Your task to perform on an android device: change keyboard looks Image 0: 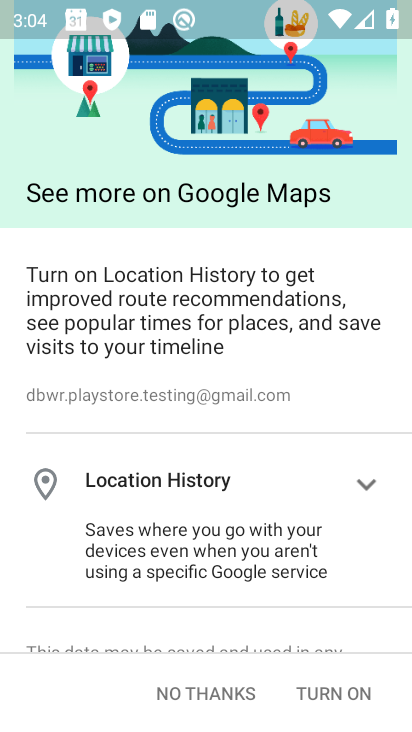
Step 0: press home button
Your task to perform on an android device: change keyboard looks Image 1: 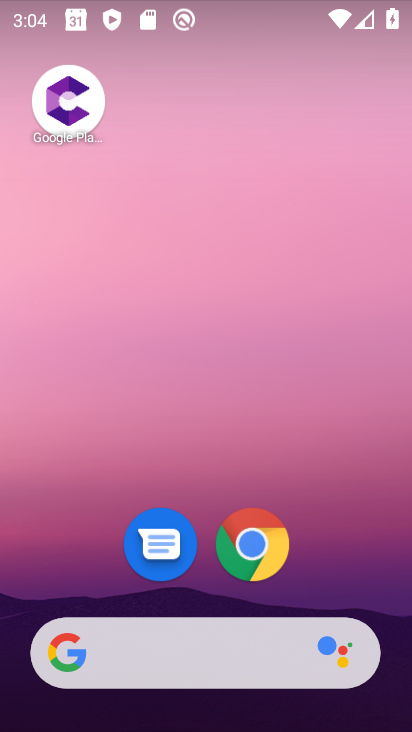
Step 1: drag from (208, 483) to (231, 50)
Your task to perform on an android device: change keyboard looks Image 2: 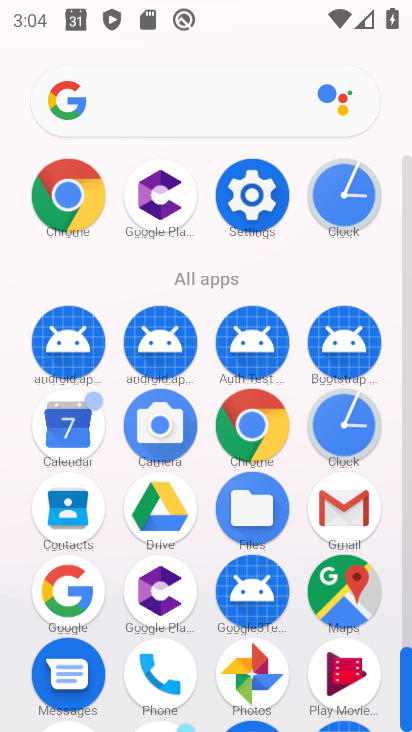
Step 2: click (252, 190)
Your task to perform on an android device: change keyboard looks Image 3: 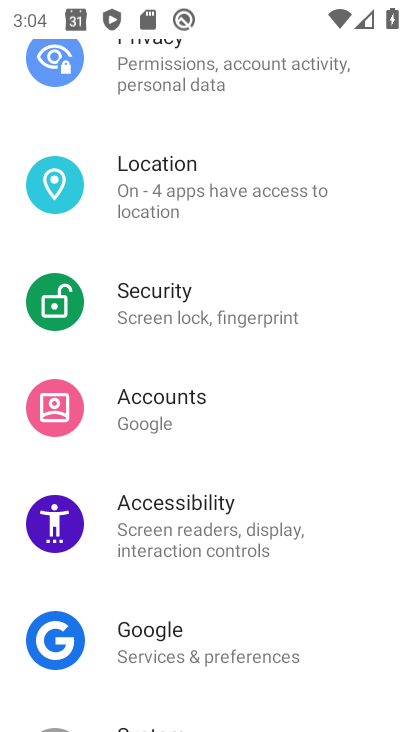
Step 3: drag from (214, 677) to (218, 34)
Your task to perform on an android device: change keyboard looks Image 4: 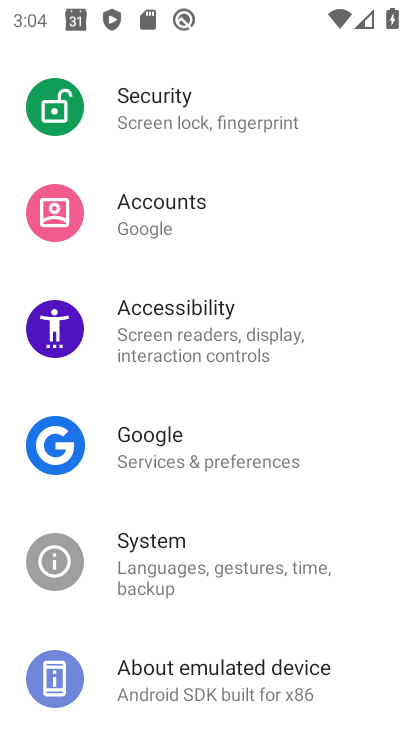
Step 4: click (208, 543)
Your task to perform on an android device: change keyboard looks Image 5: 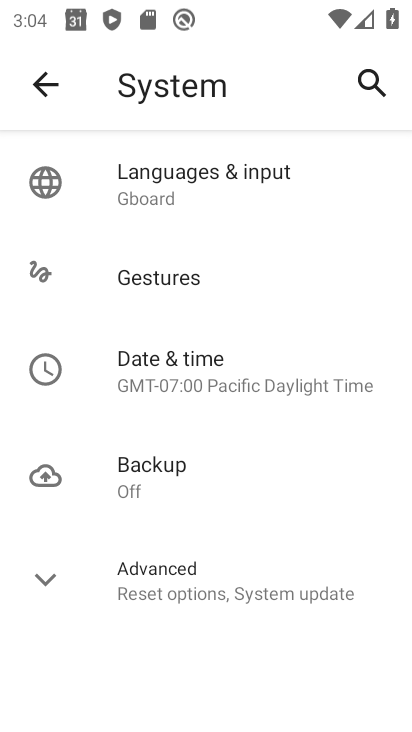
Step 5: click (100, 174)
Your task to perform on an android device: change keyboard looks Image 6: 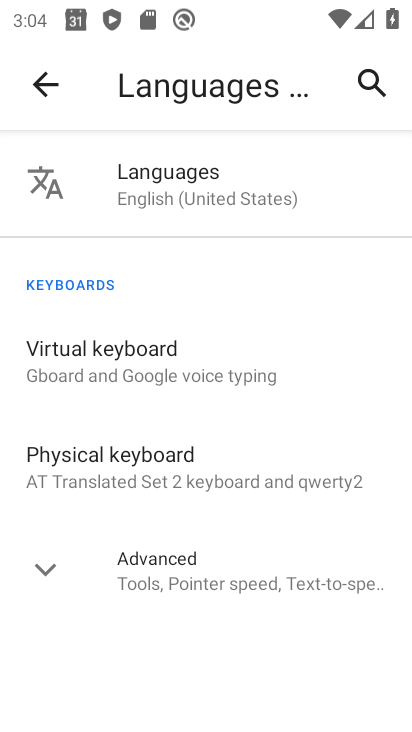
Step 6: click (188, 351)
Your task to perform on an android device: change keyboard looks Image 7: 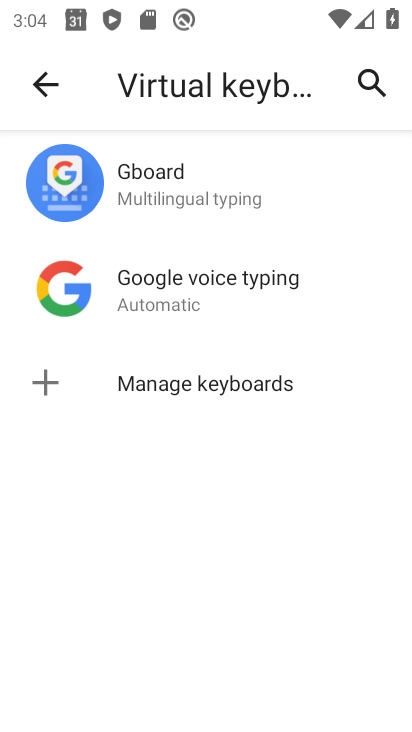
Step 7: click (202, 176)
Your task to perform on an android device: change keyboard looks Image 8: 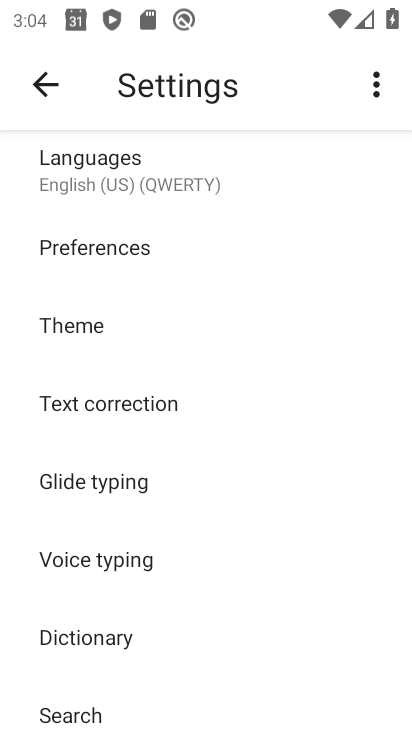
Step 8: click (111, 325)
Your task to perform on an android device: change keyboard looks Image 9: 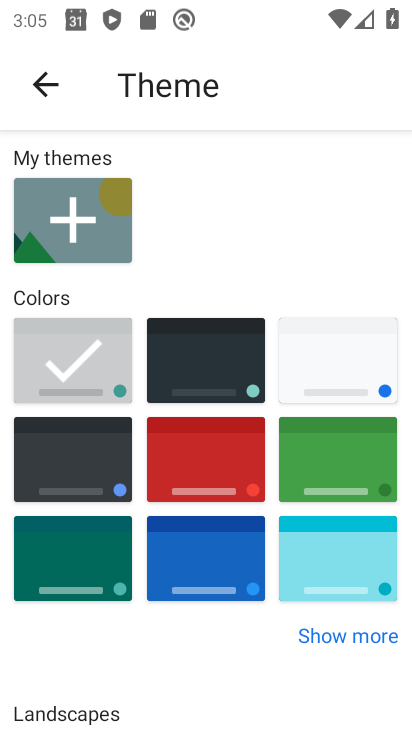
Step 9: click (329, 465)
Your task to perform on an android device: change keyboard looks Image 10: 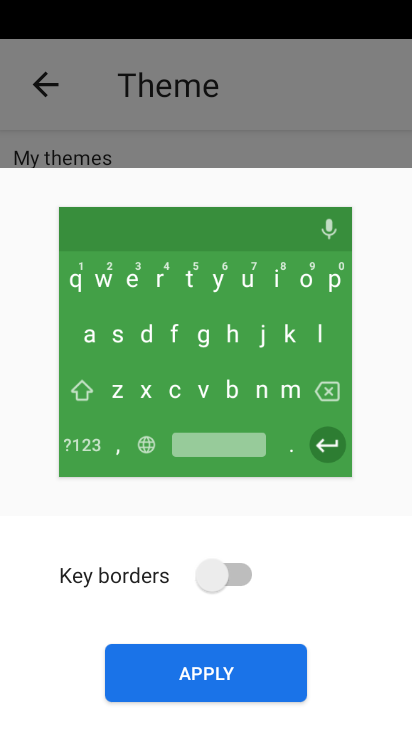
Step 10: click (208, 671)
Your task to perform on an android device: change keyboard looks Image 11: 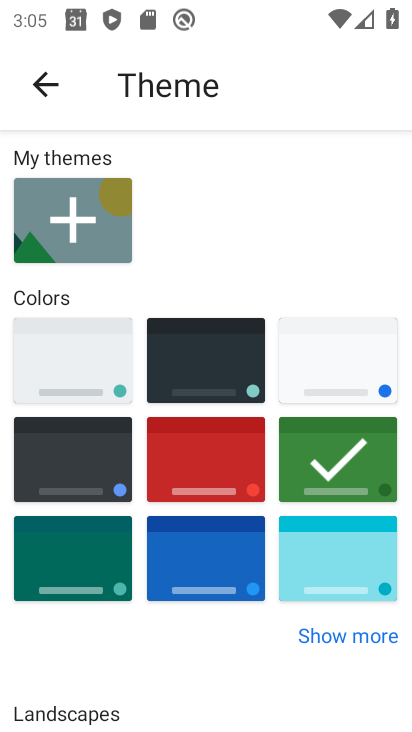
Step 11: task complete